Your task to perform on an android device: clear history in the chrome app Image 0: 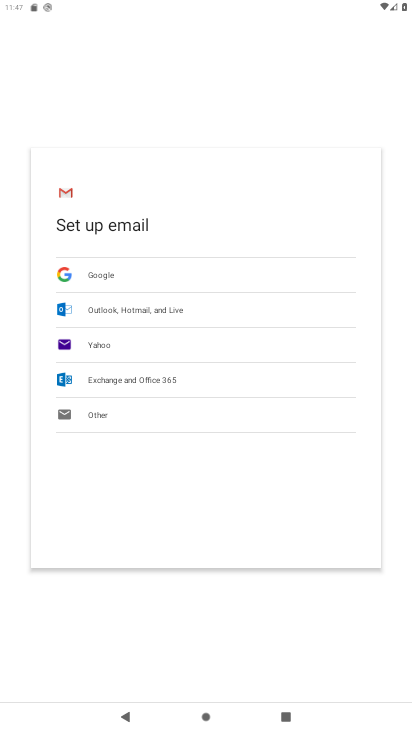
Step 0: press home button
Your task to perform on an android device: clear history in the chrome app Image 1: 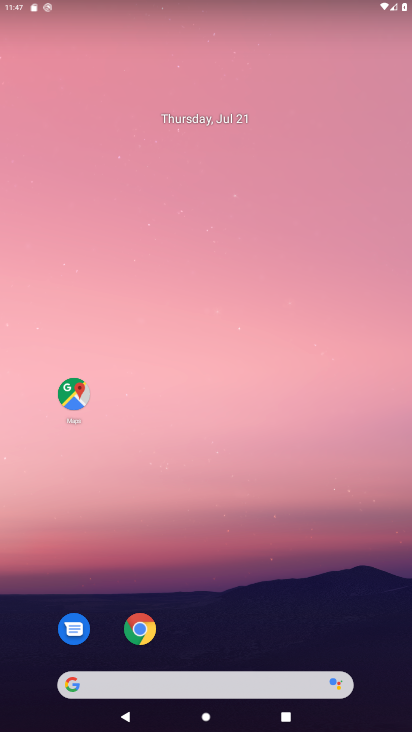
Step 1: click (132, 628)
Your task to perform on an android device: clear history in the chrome app Image 2: 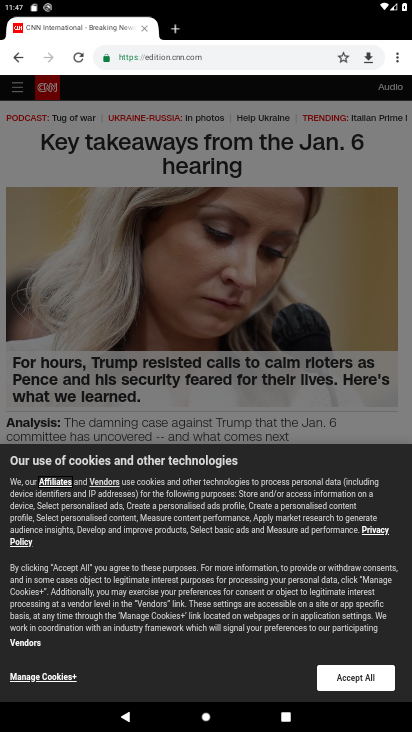
Step 2: click (396, 59)
Your task to perform on an android device: clear history in the chrome app Image 3: 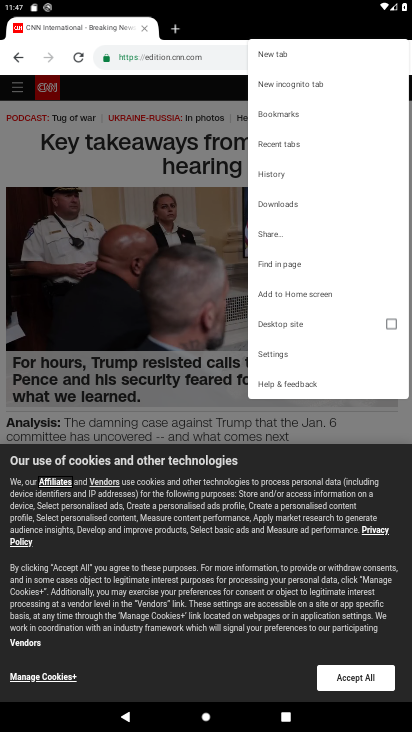
Step 3: click (283, 170)
Your task to perform on an android device: clear history in the chrome app Image 4: 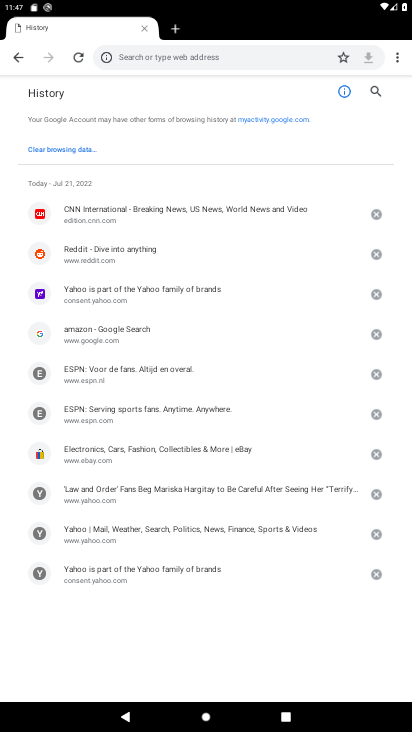
Step 4: click (59, 151)
Your task to perform on an android device: clear history in the chrome app Image 5: 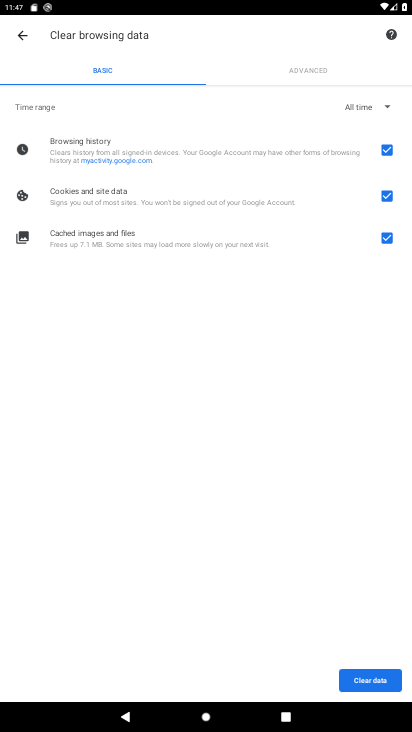
Step 5: click (362, 677)
Your task to perform on an android device: clear history in the chrome app Image 6: 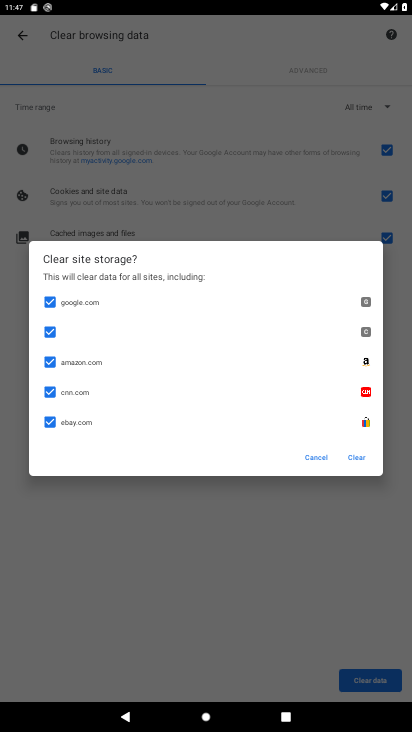
Step 6: click (361, 454)
Your task to perform on an android device: clear history in the chrome app Image 7: 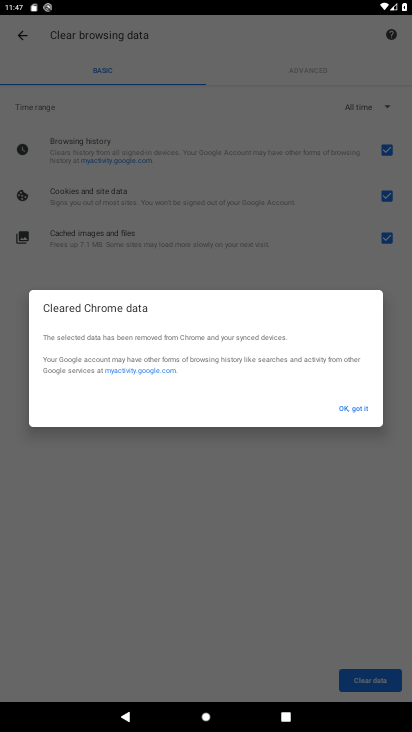
Step 7: click (361, 409)
Your task to perform on an android device: clear history in the chrome app Image 8: 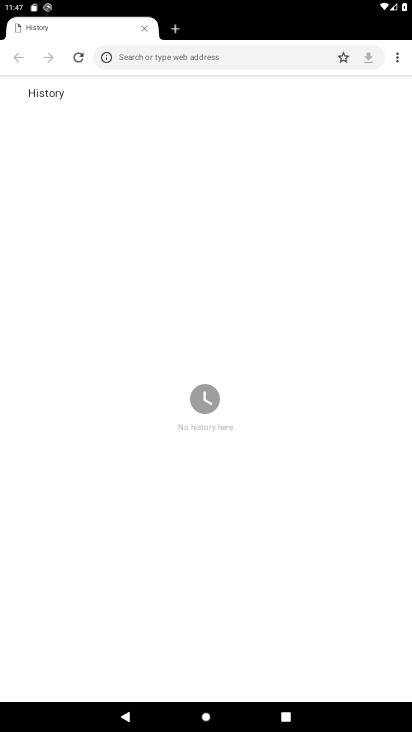
Step 8: task complete